Your task to perform on an android device: Open Wikipedia Image 0: 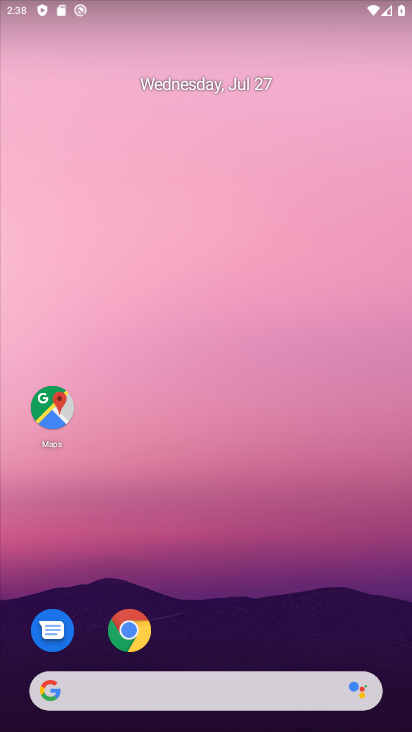
Step 0: click (51, 689)
Your task to perform on an android device: Open Wikipedia Image 1: 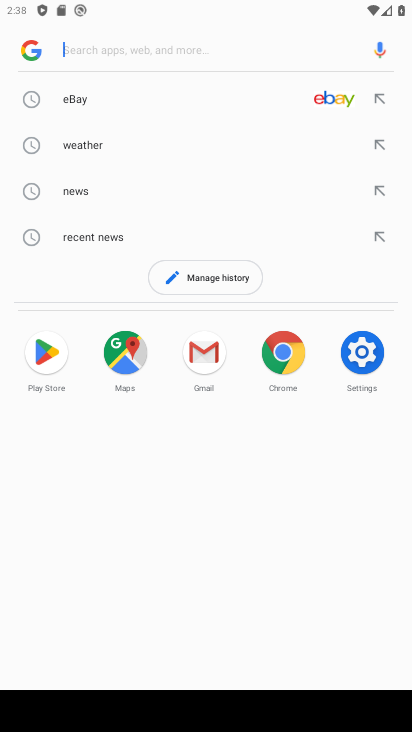
Step 1: type "Wikipedia"
Your task to perform on an android device: Open Wikipedia Image 2: 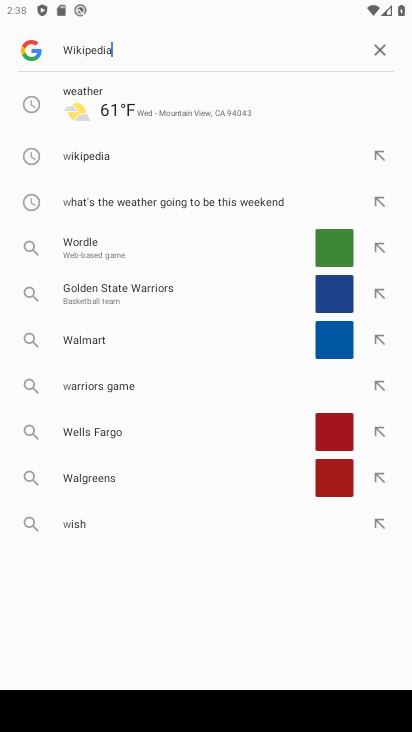
Step 2: press enter
Your task to perform on an android device: Open Wikipedia Image 3: 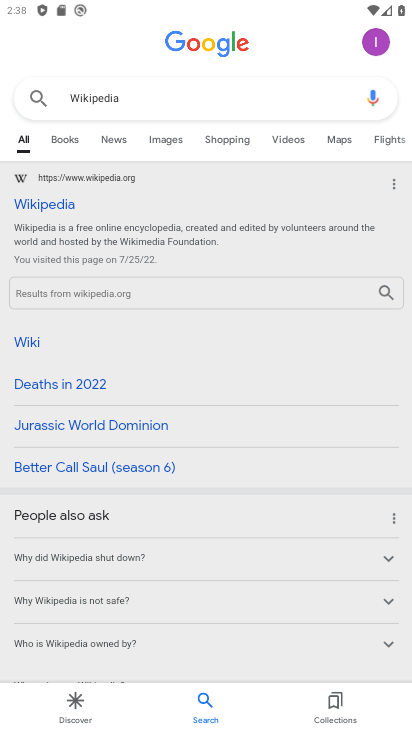
Step 3: click (46, 207)
Your task to perform on an android device: Open Wikipedia Image 4: 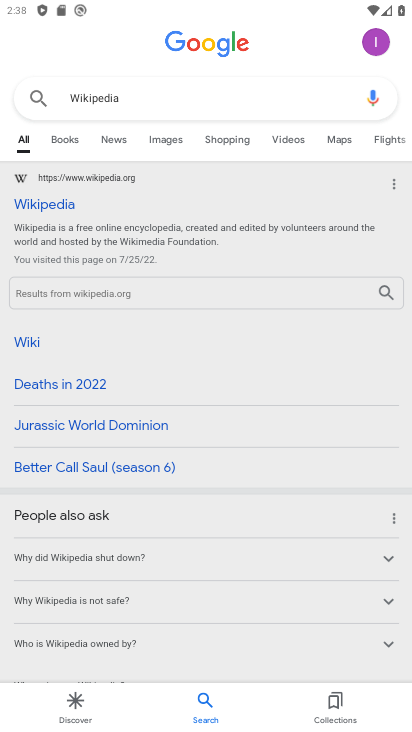
Step 4: click (46, 207)
Your task to perform on an android device: Open Wikipedia Image 5: 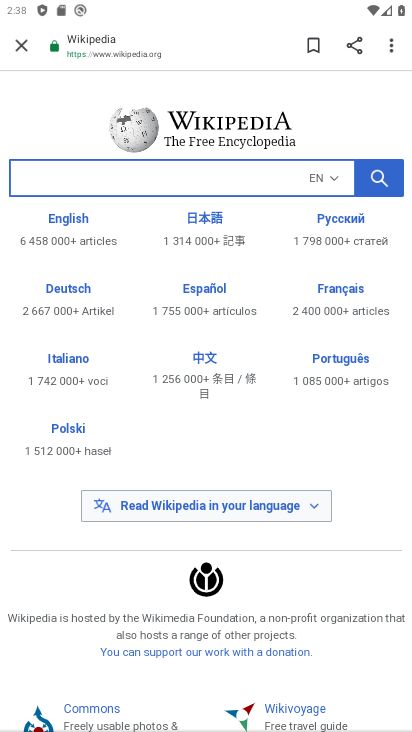
Step 5: task complete